Your task to perform on an android device: turn off notifications settings in the gmail app Image 0: 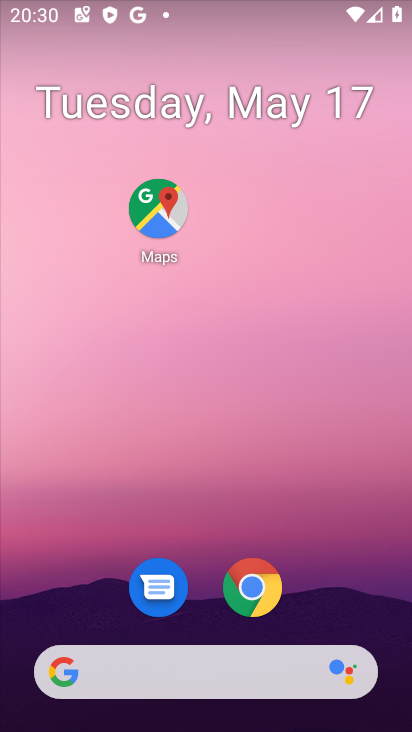
Step 0: press home button
Your task to perform on an android device: turn off notifications settings in the gmail app Image 1: 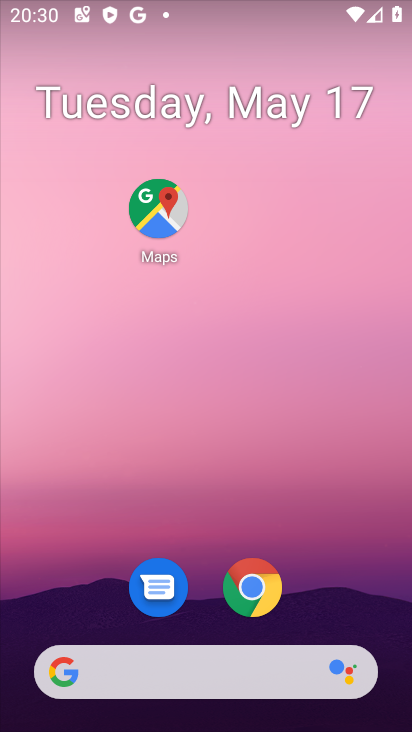
Step 1: drag from (22, 522) to (206, 104)
Your task to perform on an android device: turn off notifications settings in the gmail app Image 2: 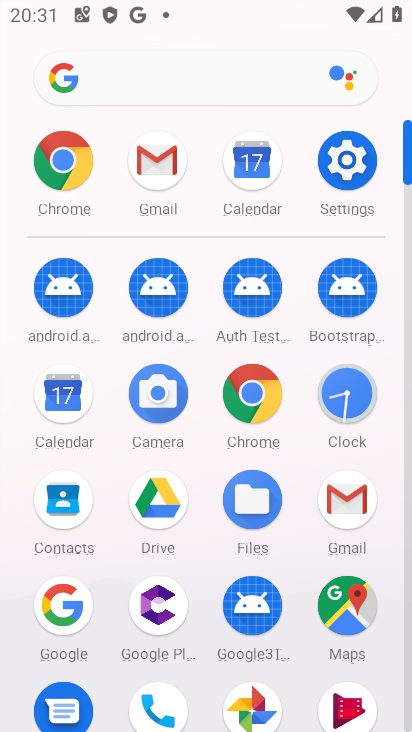
Step 2: click (333, 506)
Your task to perform on an android device: turn off notifications settings in the gmail app Image 3: 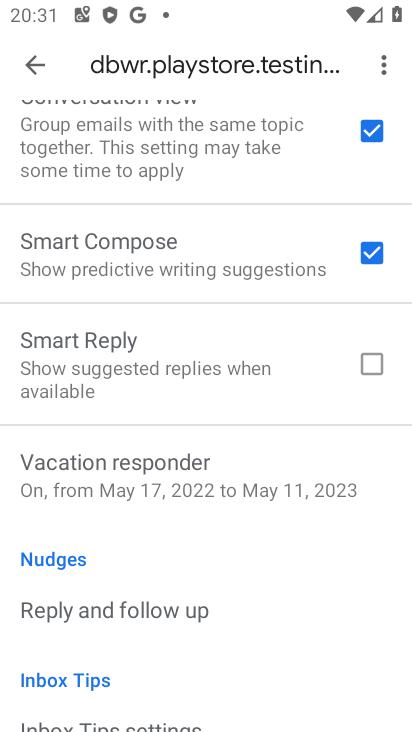
Step 3: drag from (153, 165) to (106, 650)
Your task to perform on an android device: turn off notifications settings in the gmail app Image 4: 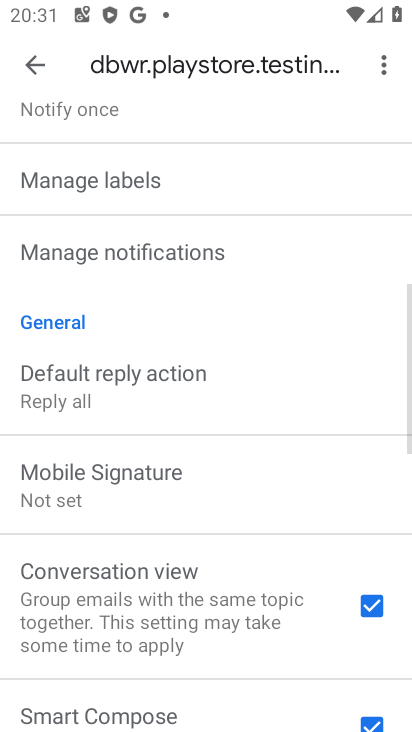
Step 4: click (84, 237)
Your task to perform on an android device: turn off notifications settings in the gmail app Image 5: 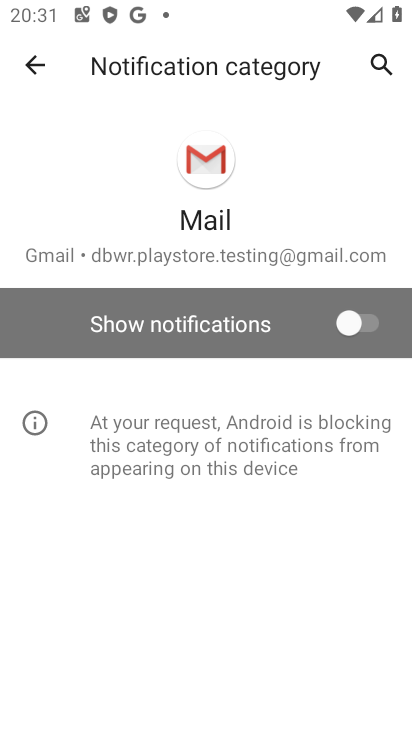
Step 5: task complete